Your task to perform on an android device: delete browsing data in the chrome app Image 0: 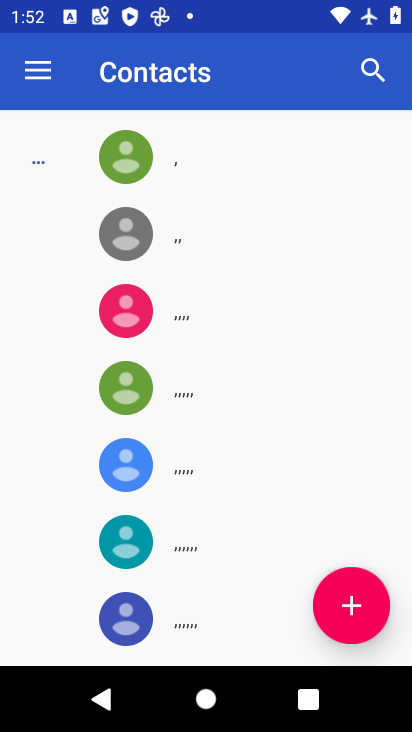
Step 0: press home button
Your task to perform on an android device: delete browsing data in the chrome app Image 1: 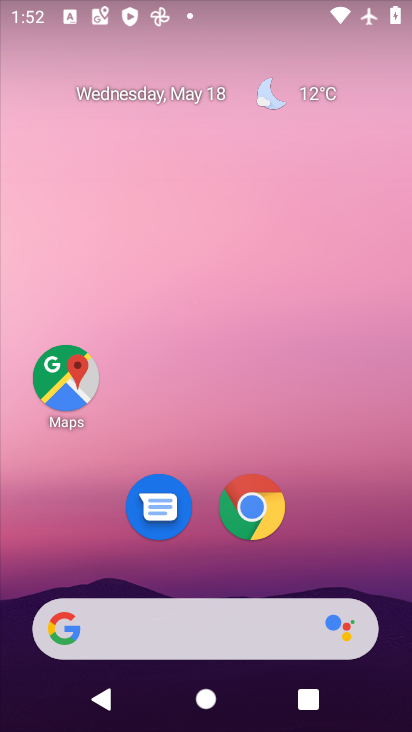
Step 1: click (253, 503)
Your task to perform on an android device: delete browsing data in the chrome app Image 2: 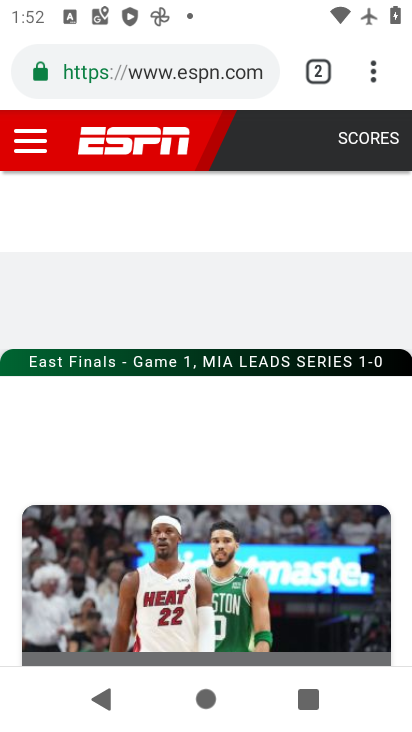
Step 2: click (373, 75)
Your task to perform on an android device: delete browsing data in the chrome app Image 3: 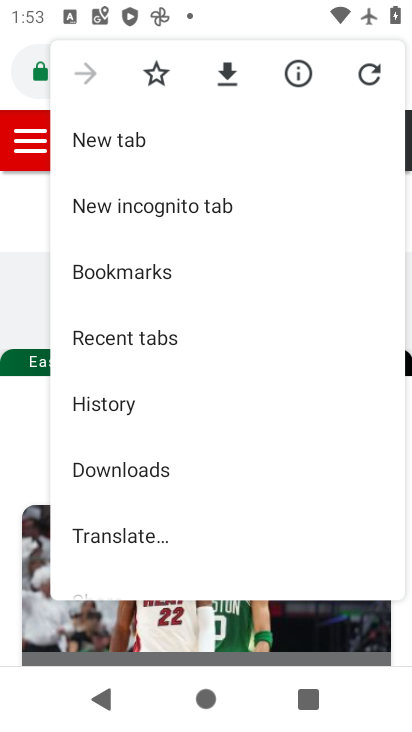
Step 3: click (102, 397)
Your task to perform on an android device: delete browsing data in the chrome app Image 4: 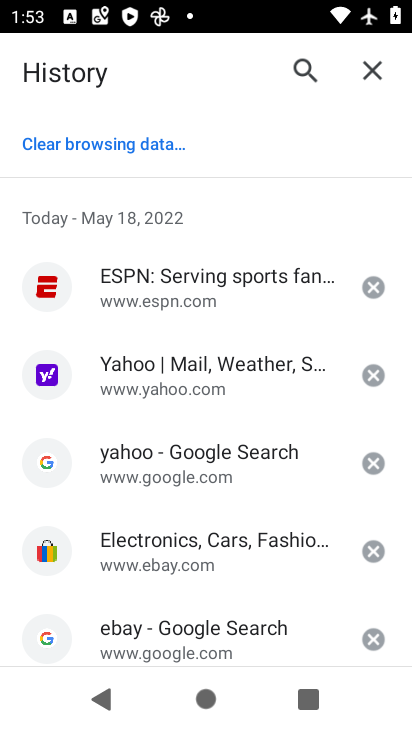
Step 4: click (91, 139)
Your task to perform on an android device: delete browsing data in the chrome app Image 5: 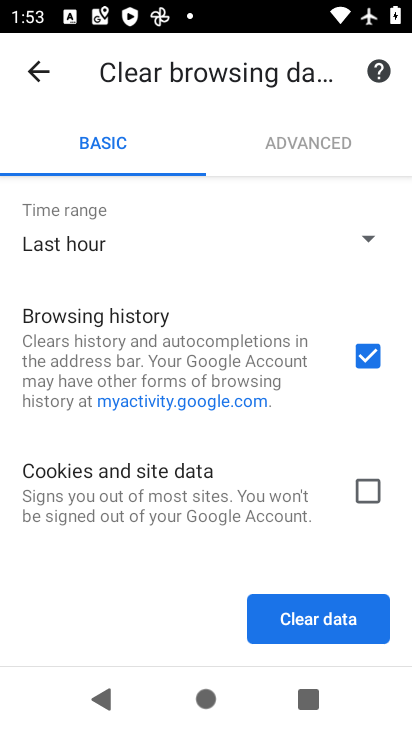
Step 5: drag from (274, 515) to (250, 269)
Your task to perform on an android device: delete browsing data in the chrome app Image 6: 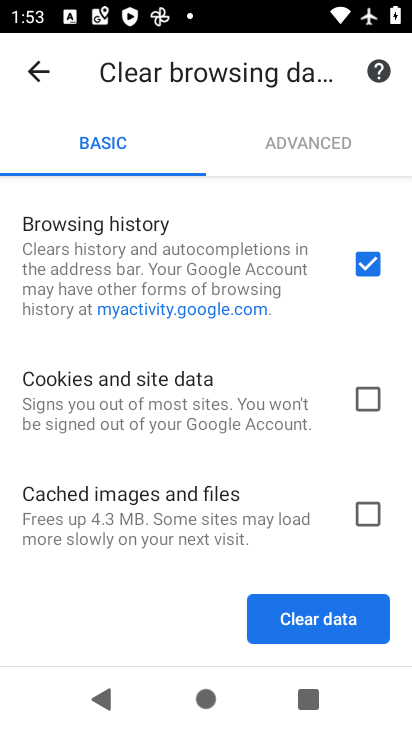
Step 6: click (351, 620)
Your task to perform on an android device: delete browsing data in the chrome app Image 7: 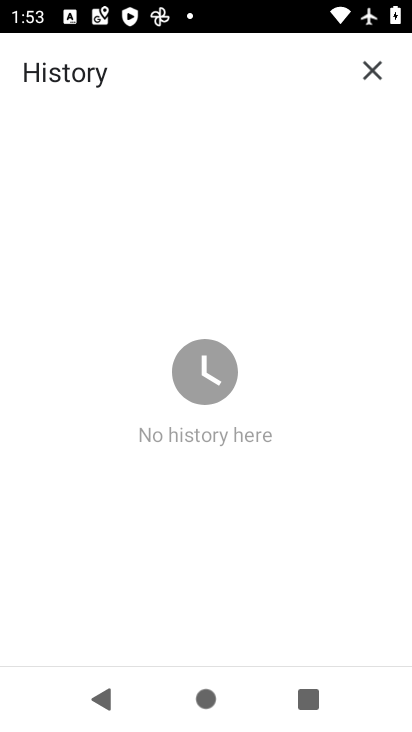
Step 7: task complete